Your task to perform on an android device: turn off smart reply in the gmail app Image 0: 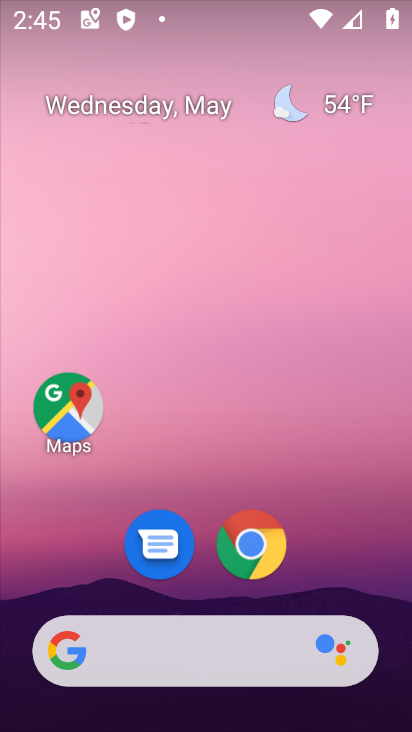
Step 0: drag from (329, 570) to (343, 38)
Your task to perform on an android device: turn off smart reply in the gmail app Image 1: 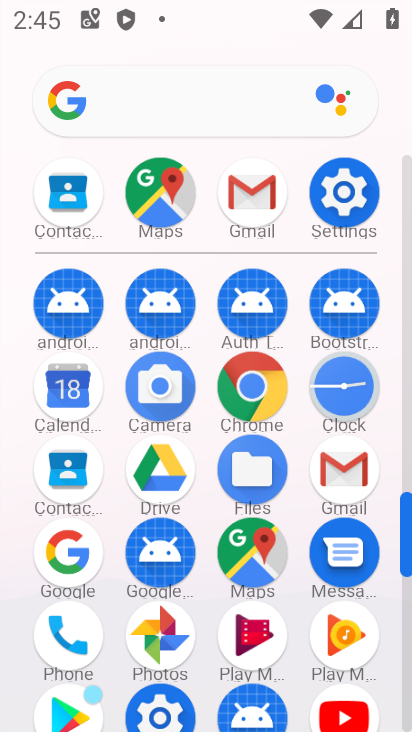
Step 1: click (258, 175)
Your task to perform on an android device: turn off smart reply in the gmail app Image 2: 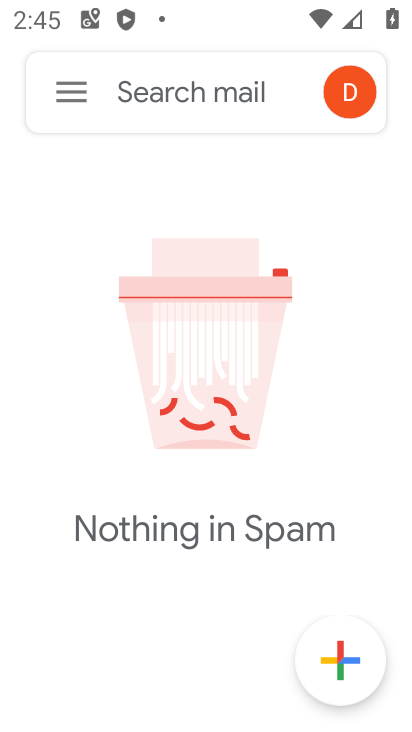
Step 2: click (76, 94)
Your task to perform on an android device: turn off smart reply in the gmail app Image 3: 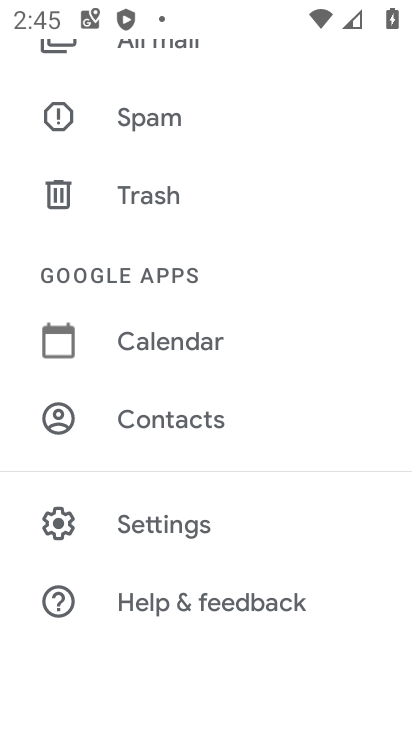
Step 3: click (111, 504)
Your task to perform on an android device: turn off smart reply in the gmail app Image 4: 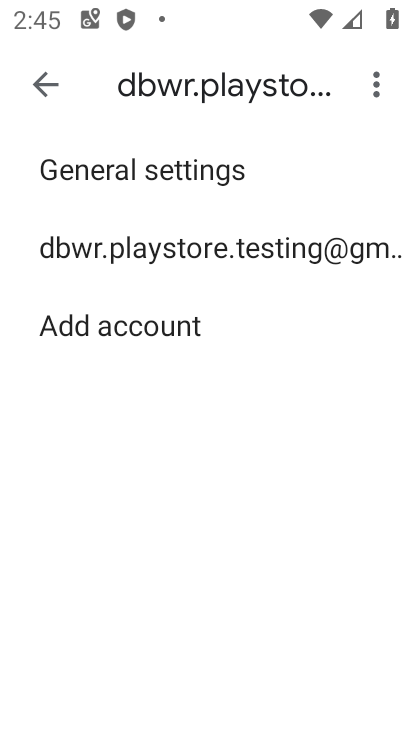
Step 4: click (124, 236)
Your task to perform on an android device: turn off smart reply in the gmail app Image 5: 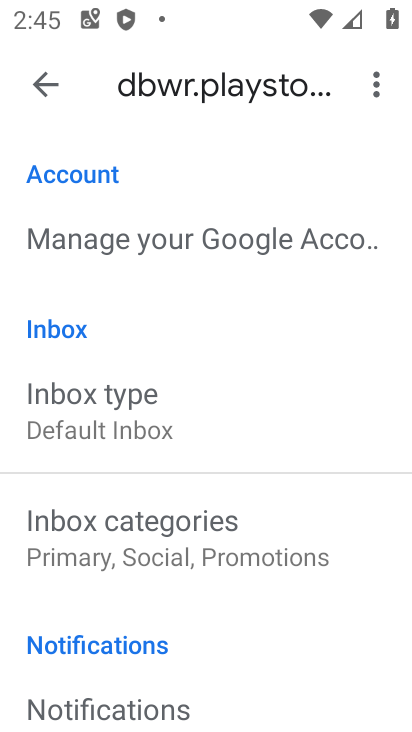
Step 5: drag from (116, 622) to (146, 30)
Your task to perform on an android device: turn off smart reply in the gmail app Image 6: 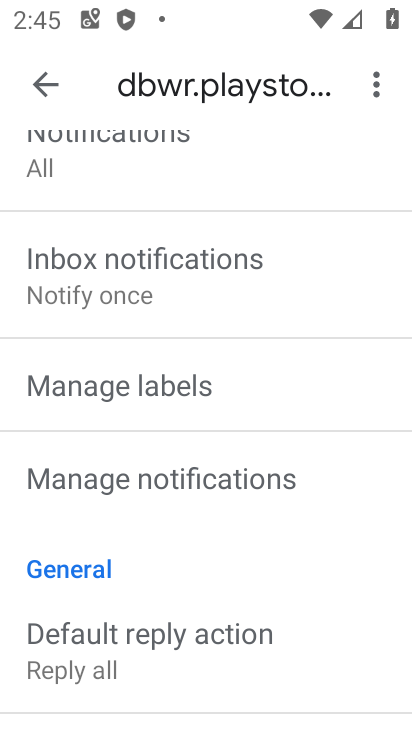
Step 6: drag from (85, 455) to (129, 53)
Your task to perform on an android device: turn off smart reply in the gmail app Image 7: 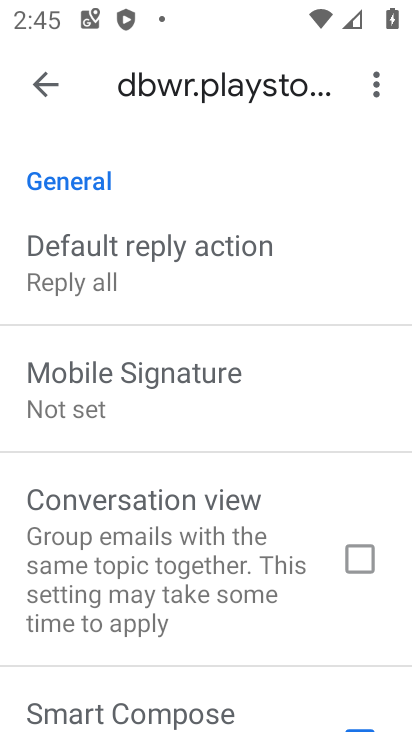
Step 7: drag from (112, 666) to (159, 367)
Your task to perform on an android device: turn off smart reply in the gmail app Image 8: 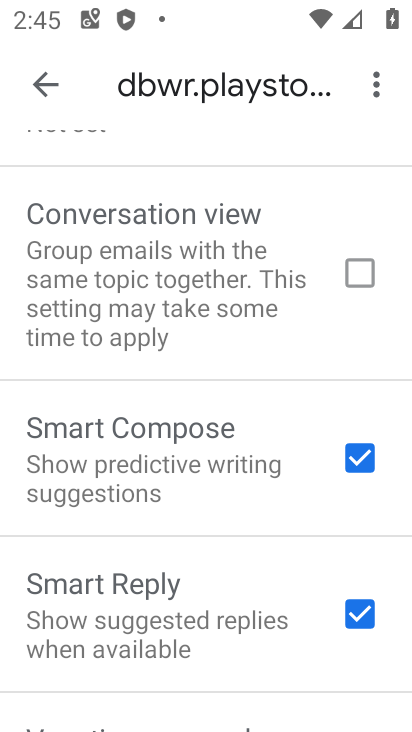
Step 8: click (359, 621)
Your task to perform on an android device: turn off smart reply in the gmail app Image 9: 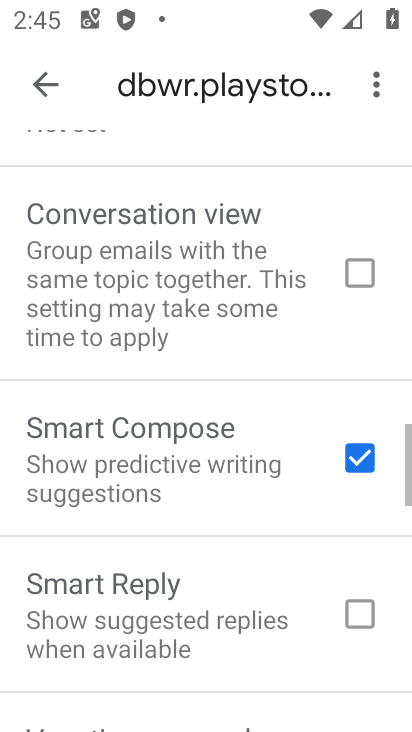
Step 9: task complete